Your task to perform on an android device: Open Chrome and go to the settings page Image 0: 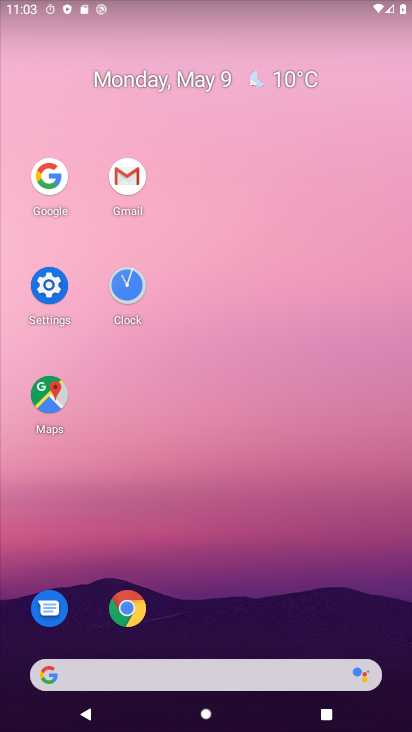
Step 0: click (131, 598)
Your task to perform on an android device: Open Chrome and go to the settings page Image 1: 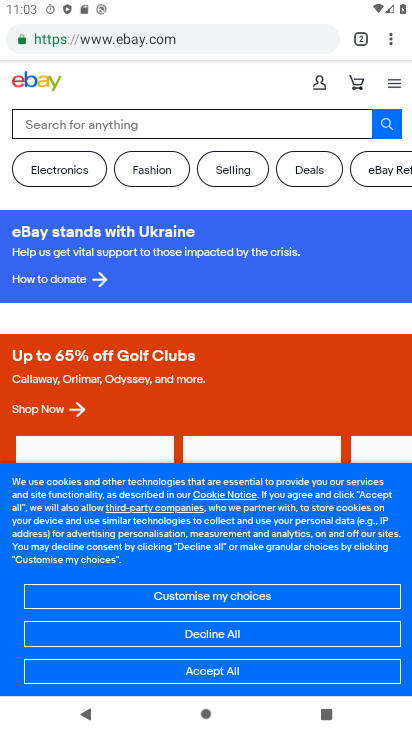
Step 1: click (391, 37)
Your task to perform on an android device: Open Chrome and go to the settings page Image 2: 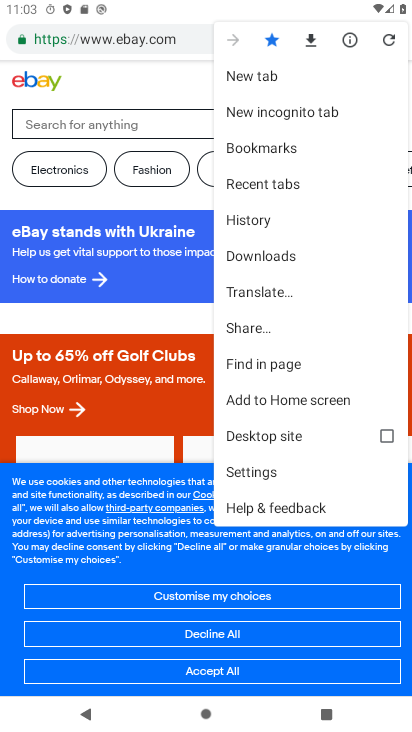
Step 2: click (270, 477)
Your task to perform on an android device: Open Chrome and go to the settings page Image 3: 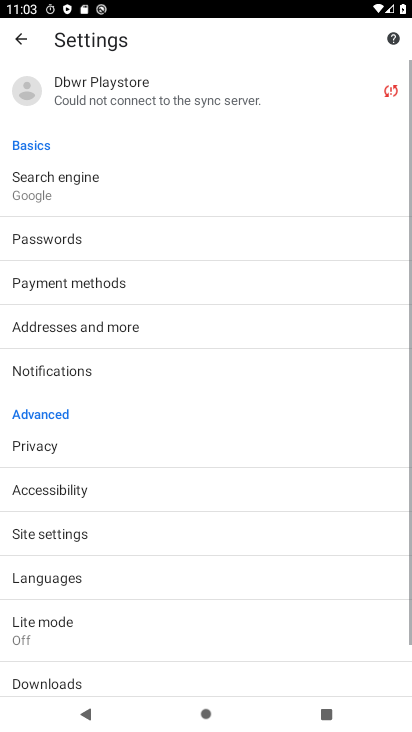
Step 3: task complete